Your task to perform on an android device: Open notification settings Image 0: 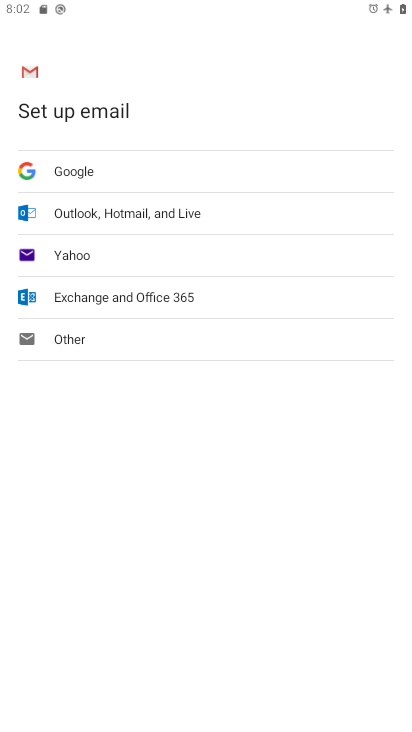
Step 0: drag from (228, 2) to (238, 378)
Your task to perform on an android device: Open notification settings Image 1: 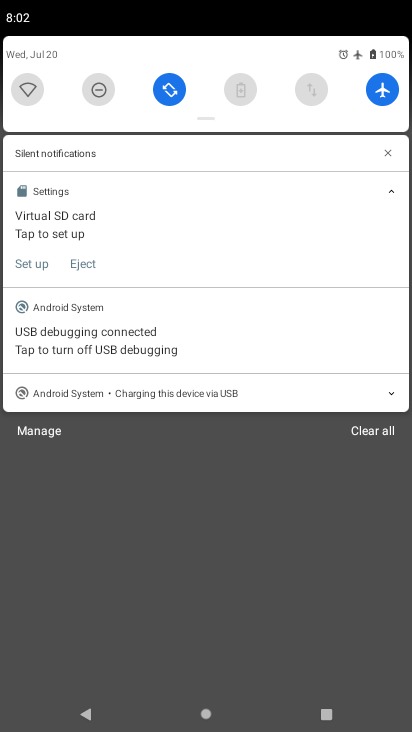
Step 1: click (388, 86)
Your task to perform on an android device: Open notification settings Image 2: 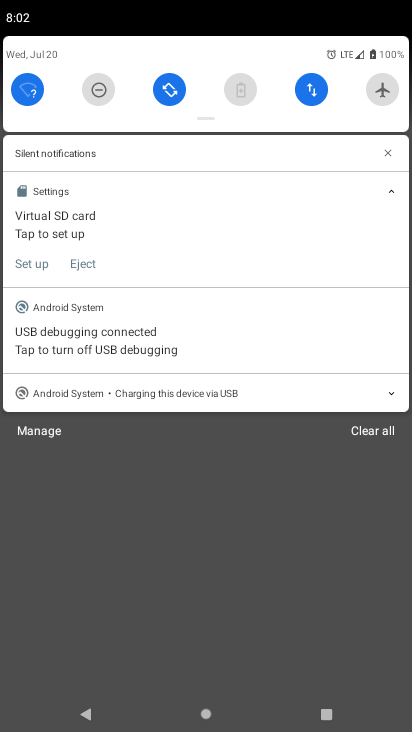
Step 2: drag from (309, 448) to (336, 134)
Your task to perform on an android device: Open notification settings Image 3: 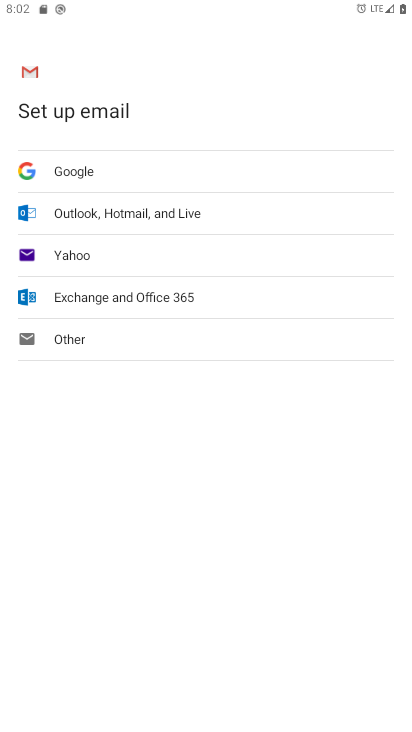
Step 3: press back button
Your task to perform on an android device: Open notification settings Image 4: 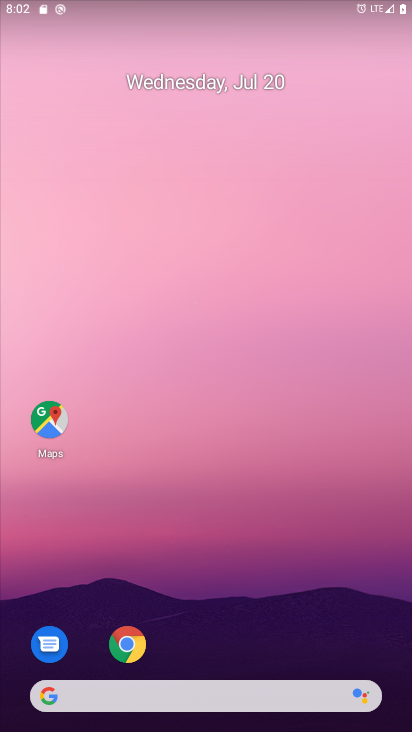
Step 4: drag from (203, 674) to (203, 276)
Your task to perform on an android device: Open notification settings Image 5: 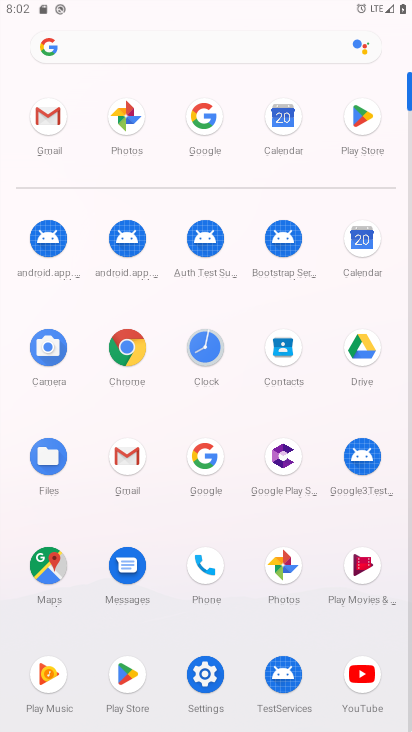
Step 5: click (208, 668)
Your task to perform on an android device: Open notification settings Image 6: 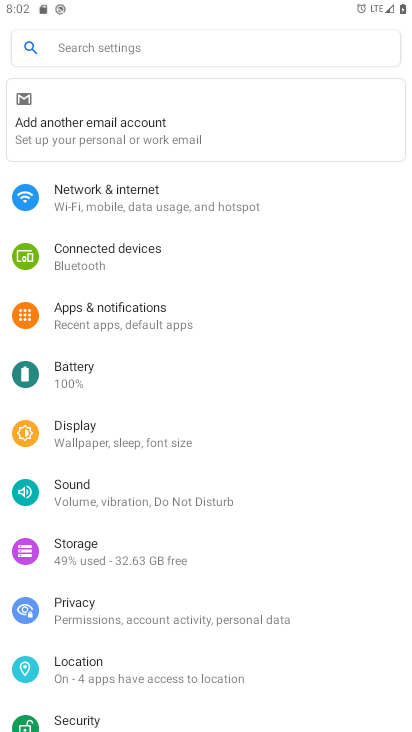
Step 6: click (90, 313)
Your task to perform on an android device: Open notification settings Image 7: 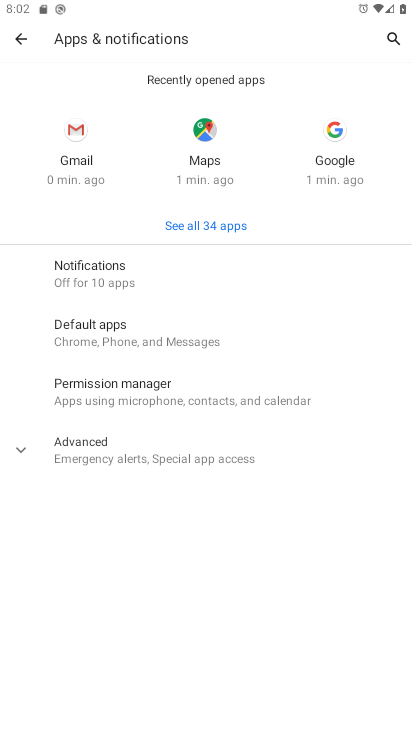
Step 7: click (89, 453)
Your task to perform on an android device: Open notification settings Image 8: 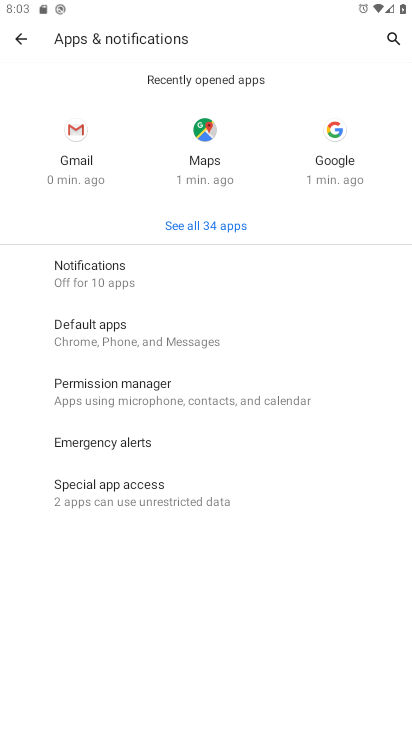
Step 8: task complete